Your task to perform on an android device: turn off location Image 0: 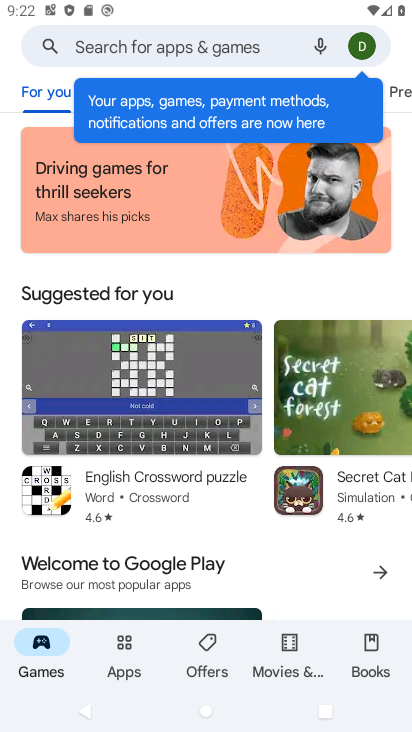
Step 0: press home button
Your task to perform on an android device: turn off location Image 1: 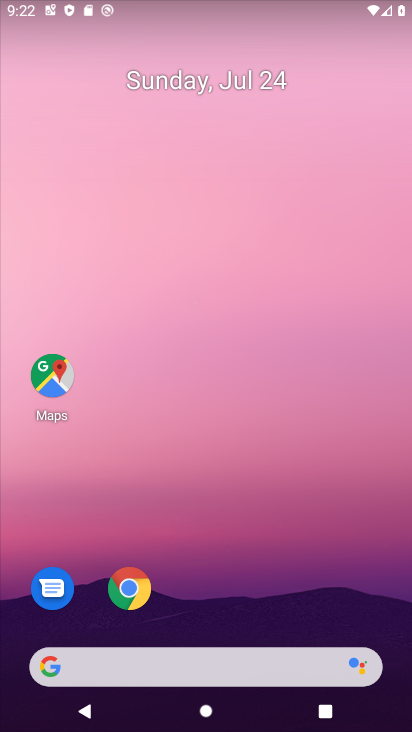
Step 1: drag from (232, 626) to (189, 0)
Your task to perform on an android device: turn off location Image 2: 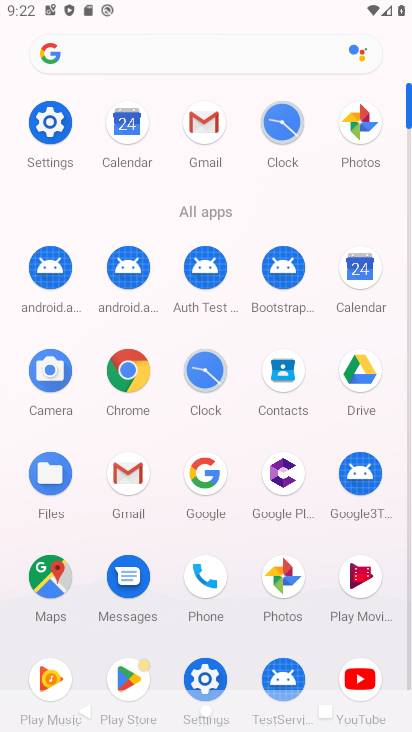
Step 2: click (45, 117)
Your task to perform on an android device: turn off location Image 3: 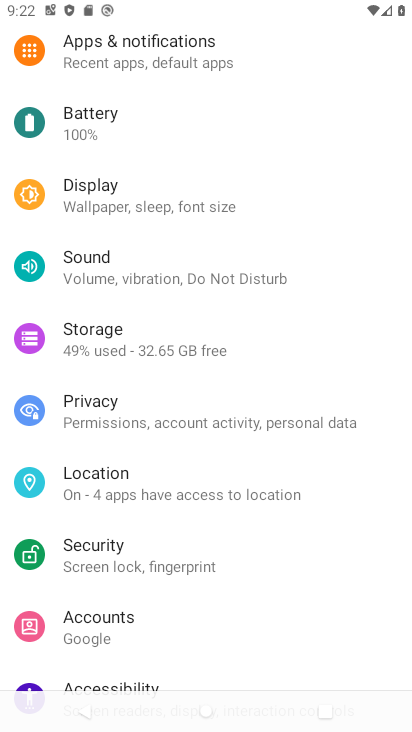
Step 3: click (97, 479)
Your task to perform on an android device: turn off location Image 4: 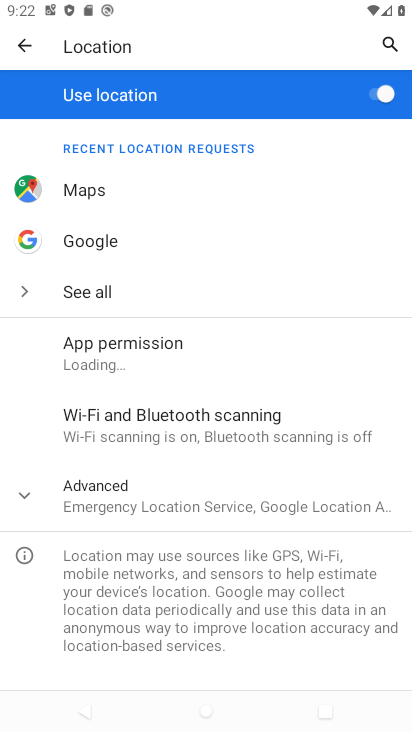
Step 4: click (381, 104)
Your task to perform on an android device: turn off location Image 5: 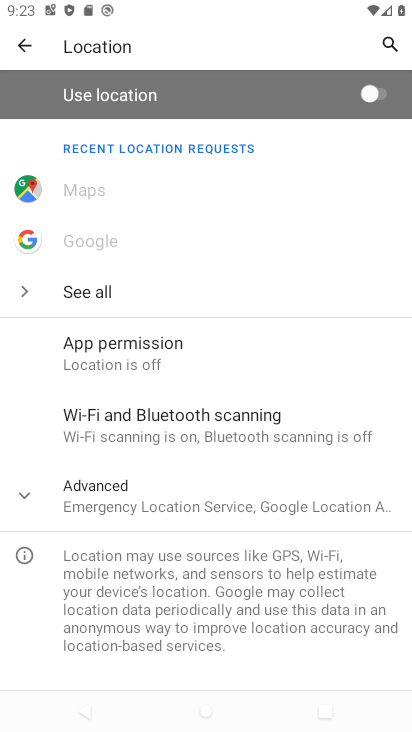
Step 5: task complete